Your task to perform on an android device: turn on location history Image 0: 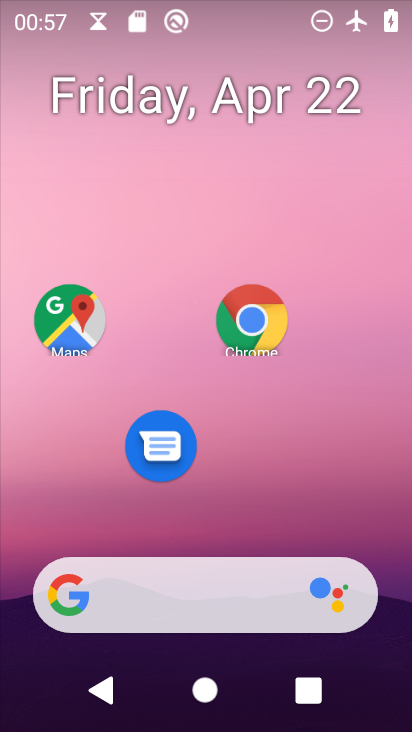
Step 0: drag from (214, 436) to (217, 106)
Your task to perform on an android device: turn on location history Image 1: 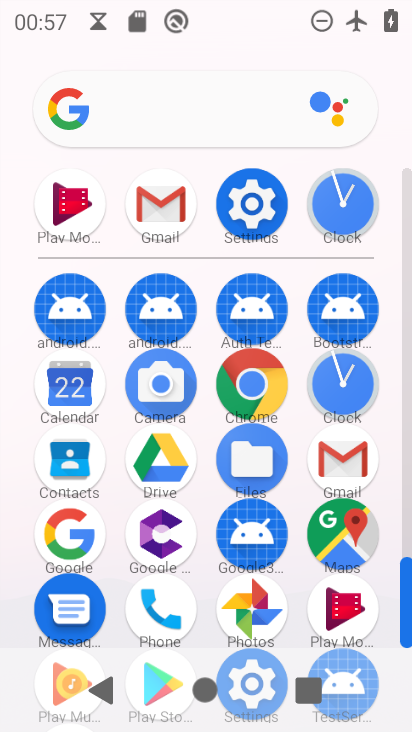
Step 1: click (244, 202)
Your task to perform on an android device: turn on location history Image 2: 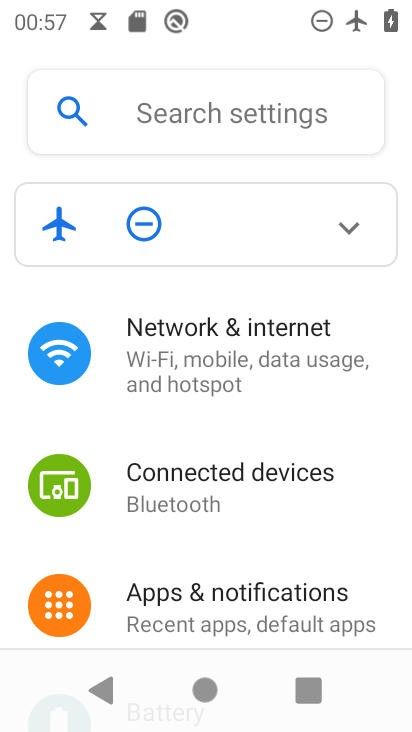
Step 2: drag from (210, 481) to (236, 355)
Your task to perform on an android device: turn on location history Image 3: 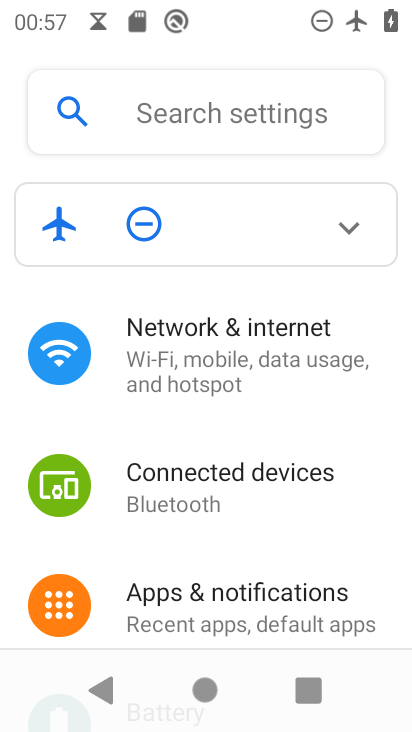
Step 3: drag from (208, 571) to (410, 85)
Your task to perform on an android device: turn on location history Image 4: 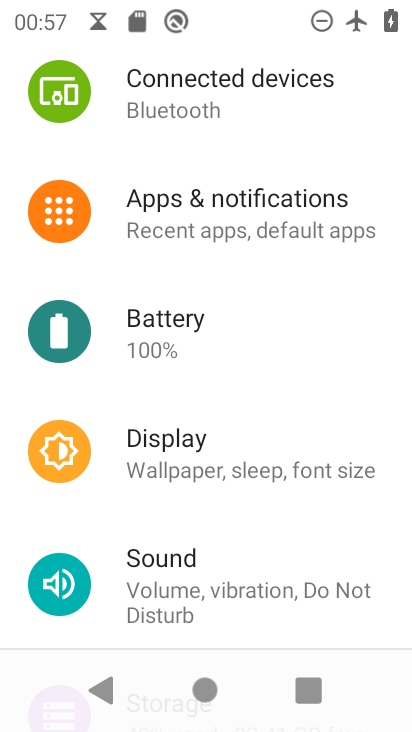
Step 4: drag from (243, 518) to (352, 148)
Your task to perform on an android device: turn on location history Image 5: 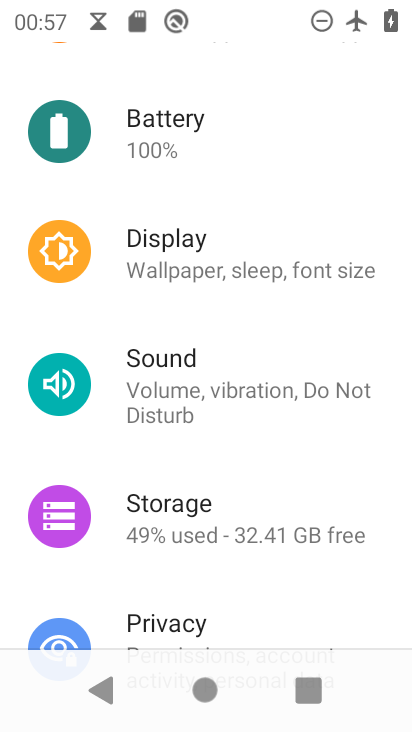
Step 5: drag from (217, 564) to (293, 184)
Your task to perform on an android device: turn on location history Image 6: 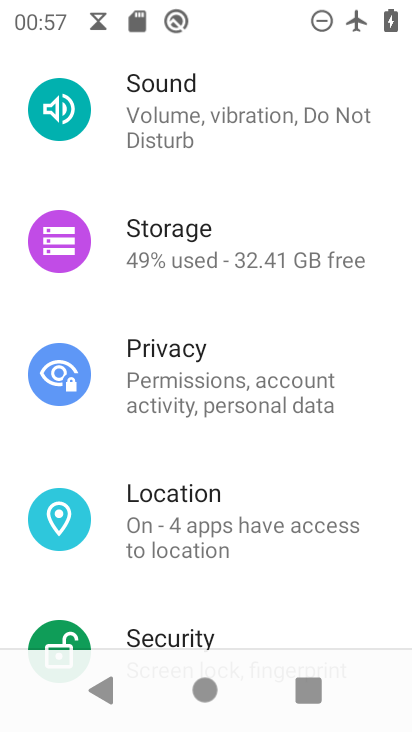
Step 6: drag from (229, 546) to (276, 223)
Your task to perform on an android device: turn on location history Image 7: 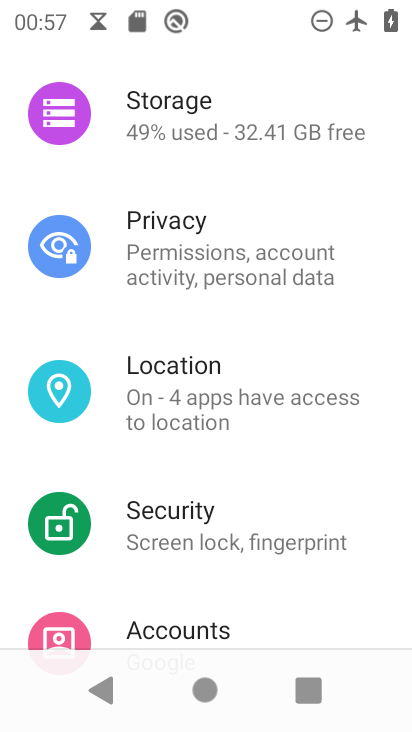
Step 7: click (226, 362)
Your task to perform on an android device: turn on location history Image 8: 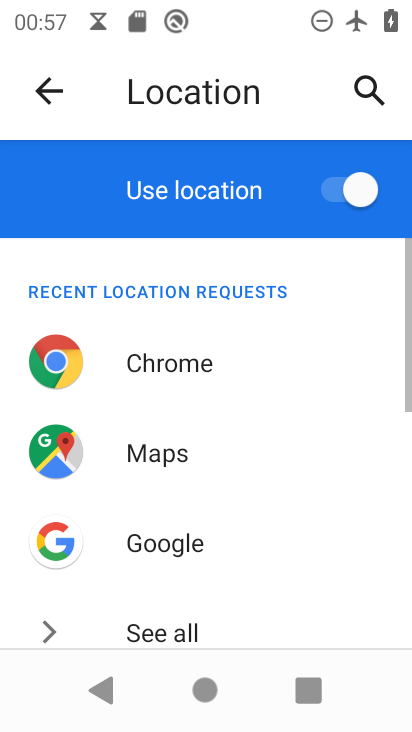
Step 8: drag from (224, 522) to (227, 156)
Your task to perform on an android device: turn on location history Image 9: 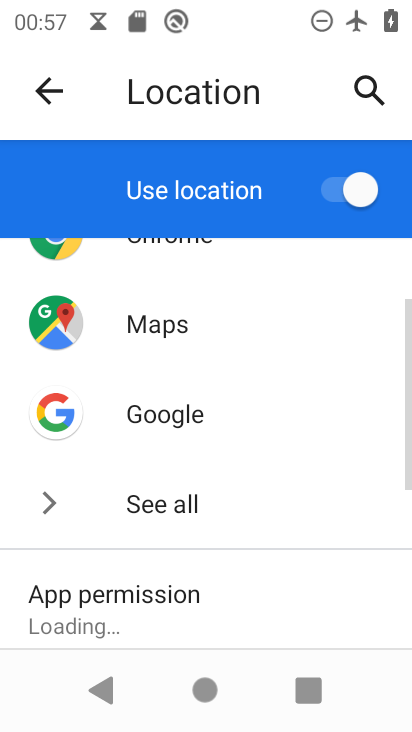
Step 9: drag from (229, 549) to (286, 333)
Your task to perform on an android device: turn on location history Image 10: 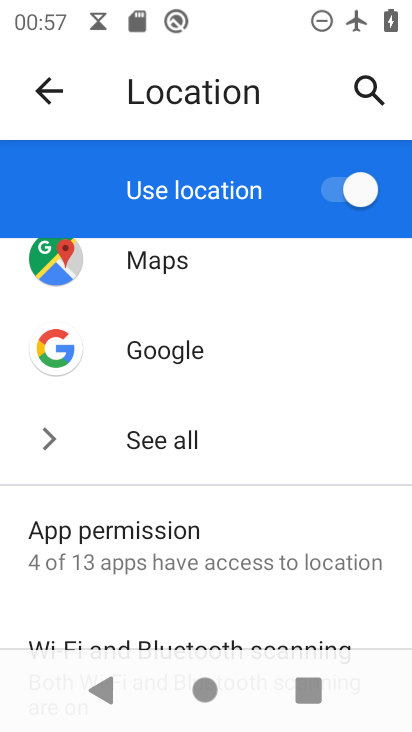
Step 10: drag from (247, 553) to (281, 261)
Your task to perform on an android device: turn on location history Image 11: 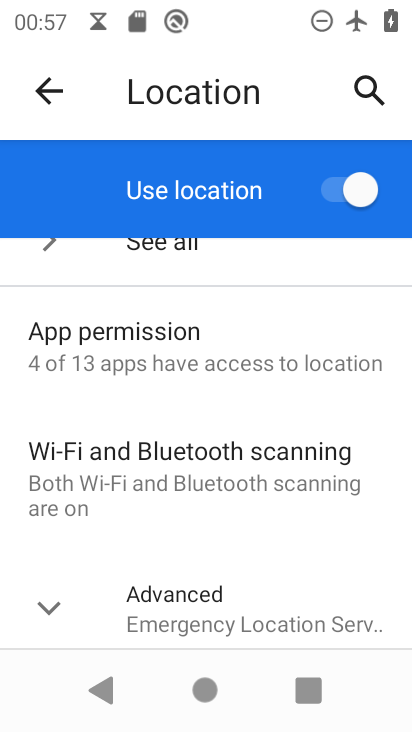
Step 11: click (143, 622)
Your task to perform on an android device: turn on location history Image 12: 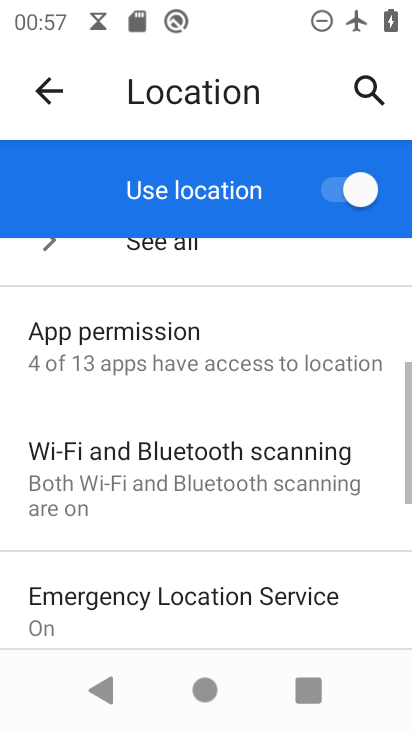
Step 12: drag from (215, 524) to (299, 134)
Your task to perform on an android device: turn on location history Image 13: 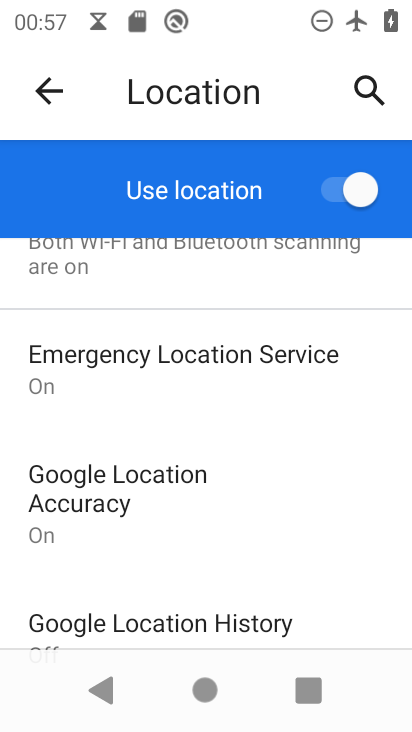
Step 13: drag from (211, 526) to (263, 248)
Your task to perform on an android device: turn on location history Image 14: 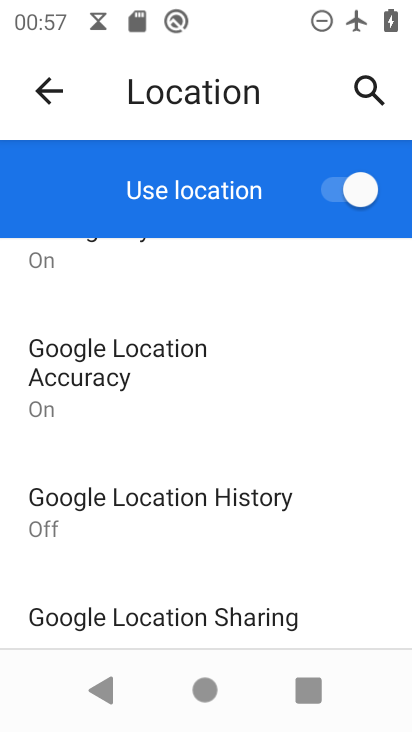
Step 14: click (204, 515)
Your task to perform on an android device: turn on location history Image 15: 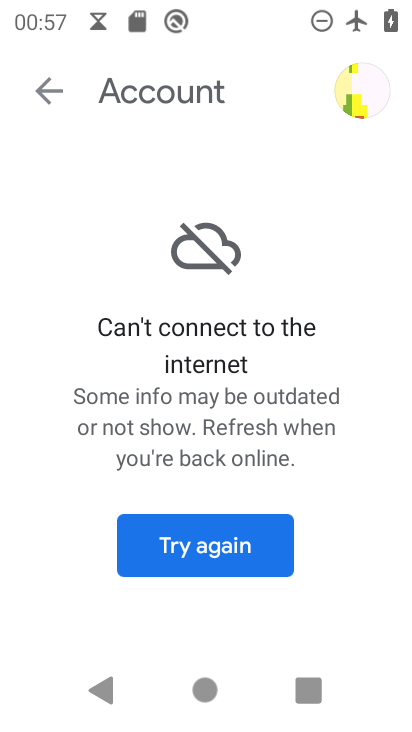
Step 15: click (175, 556)
Your task to perform on an android device: turn on location history Image 16: 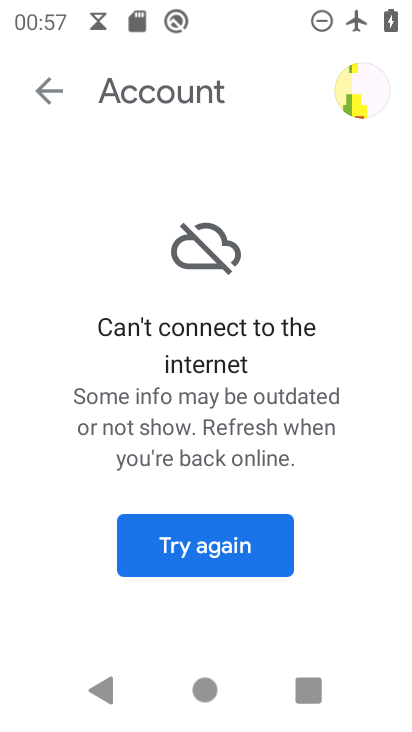
Step 16: drag from (278, 440) to (332, 214)
Your task to perform on an android device: turn on location history Image 17: 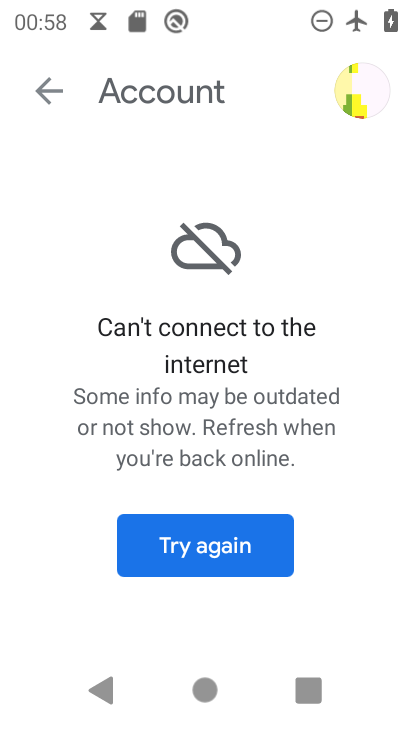
Step 17: click (207, 535)
Your task to perform on an android device: turn on location history Image 18: 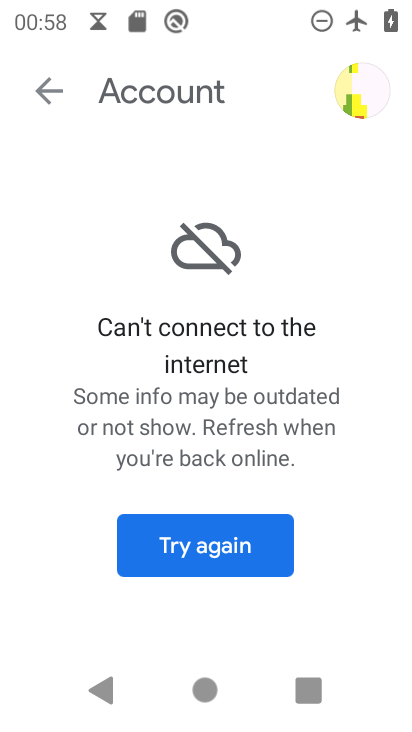
Step 18: drag from (250, 481) to (299, 248)
Your task to perform on an android device: turn on location history Image 19: 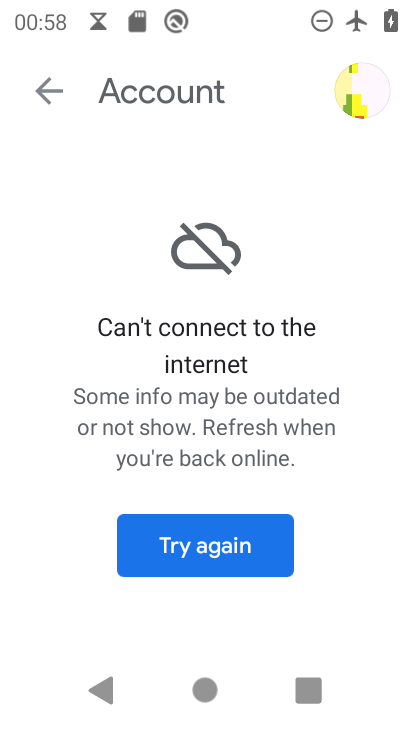
Step 19: drag from (154, 480) to (276, 161)
Your task to perform on an android device: turn on location history Image 20: 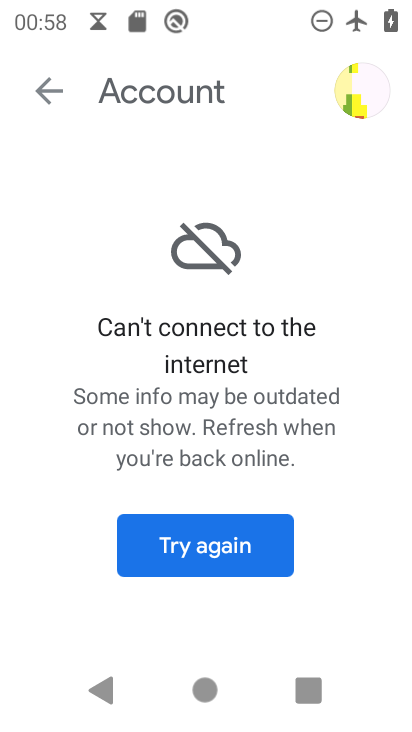
Step 20: drag from (252, 484) to (274, 274)
Your task to perform on an android device: turn on location history Image 21: 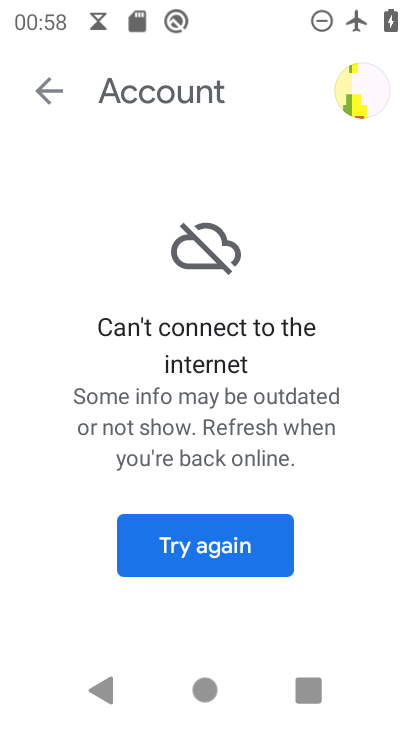
Step 21: drag from (211, 476) to (260, 206)
Your task to perform on an android device: turn on location history Image 22: 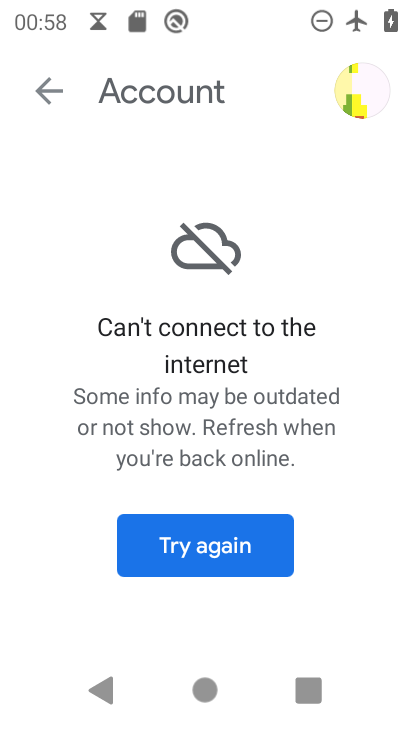
Step 22: drag from (254, 492) to (246, 286)
Your task to perform on an android device: turn on location history Image 23: 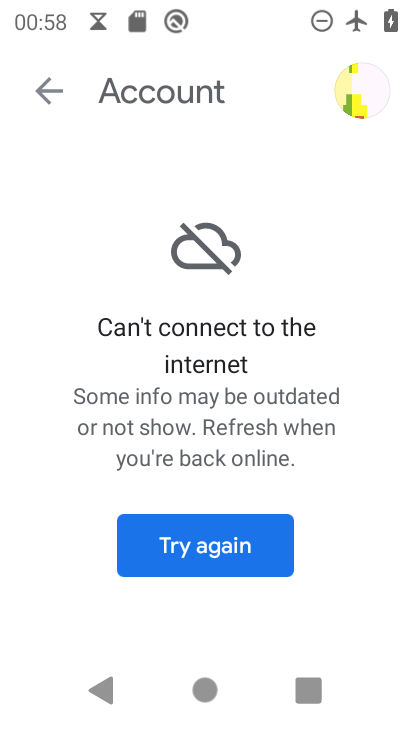
Step 23: click (212, 592)
Your task to perform on an android device: turn on location history Image 24: 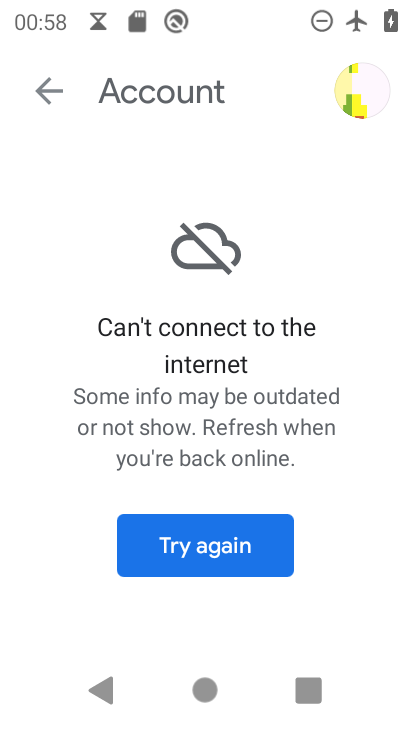
Step 24: drag from (263, 467) to (284, 242)
Your task to perform on an android device: turn on location history Image 25: 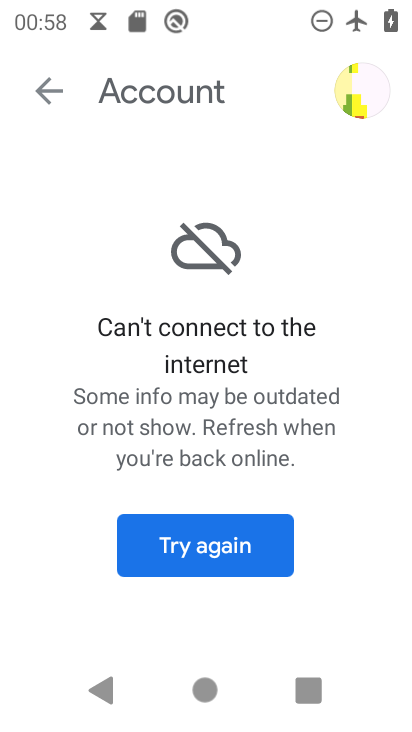
Step 25: click (349, 112)
Your task to perform on an android device: turn on location history Image 26: 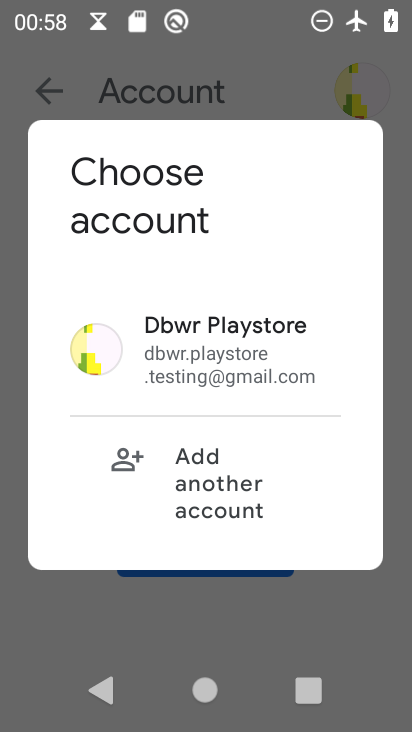
Step 26: click (185, 621)
Your task to perform on an android device: turn on location history Image 27: 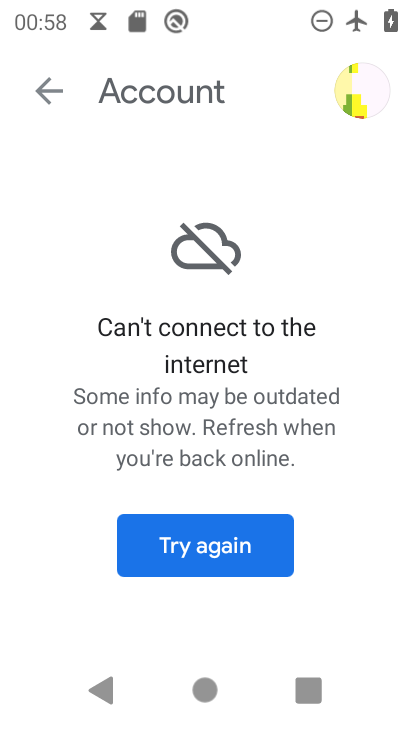
Step 27: task complete